Your task to perform on an android device: open a bookmark in the chrome app Image 0: 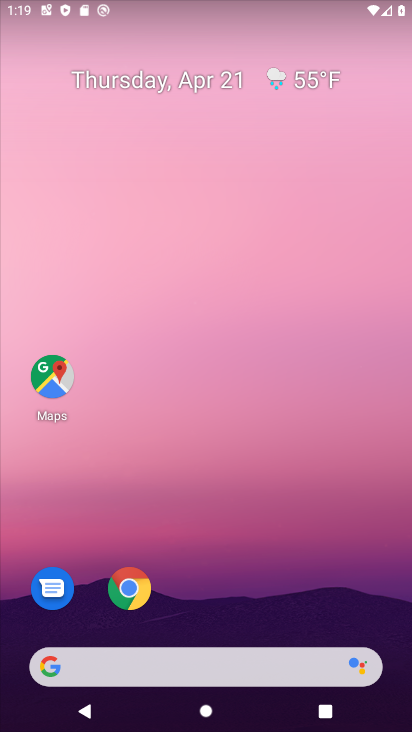
Step 0: click (128, 608)
Your task to perform on an android device: open a bookmark in the chrome app Image 1: 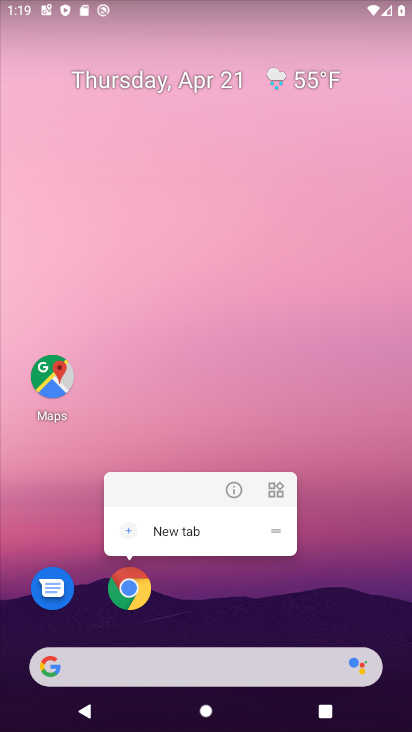
Step 1: click (130, 598)
Your task to perform on an android device: open a bookmark in the chrome app Image 2: 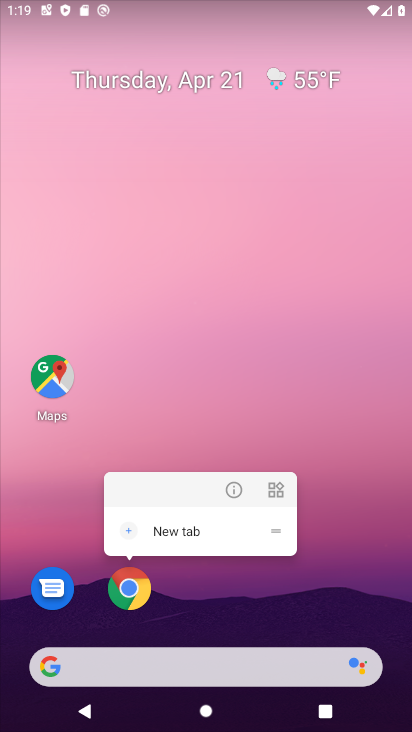
Step 2: click (130, 593)
Your task to perform on an android device: open a bookmark in the chrome app Image 3: 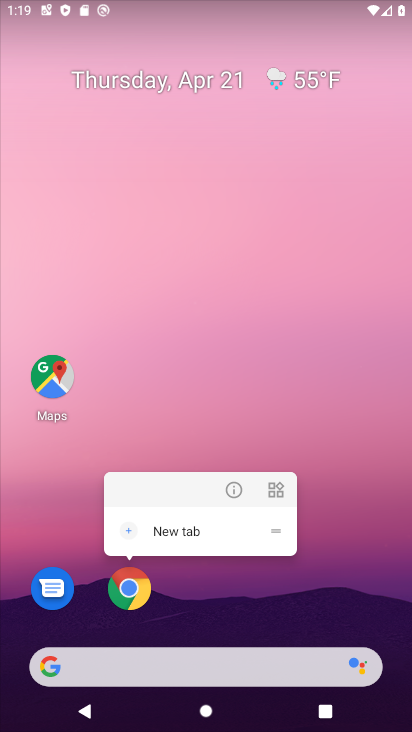
Step 3: click (130, 589)
Your task to perform on an android device: open a bookmark in the chrome app Image 4: 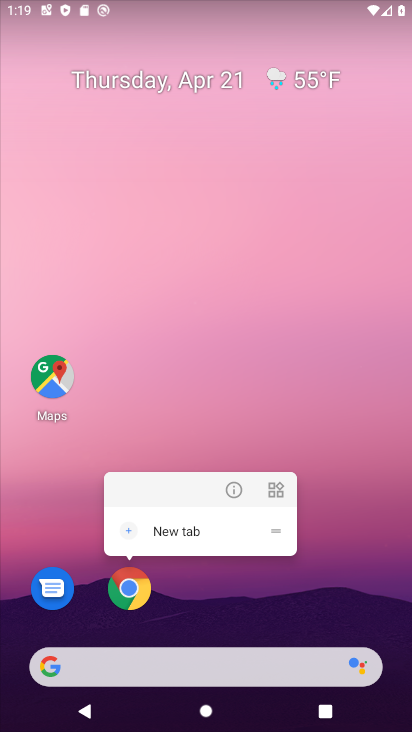
Step 4: click (130, 582)
Your task to perform on an android device: open a bookmark in the chrome app Image 5: 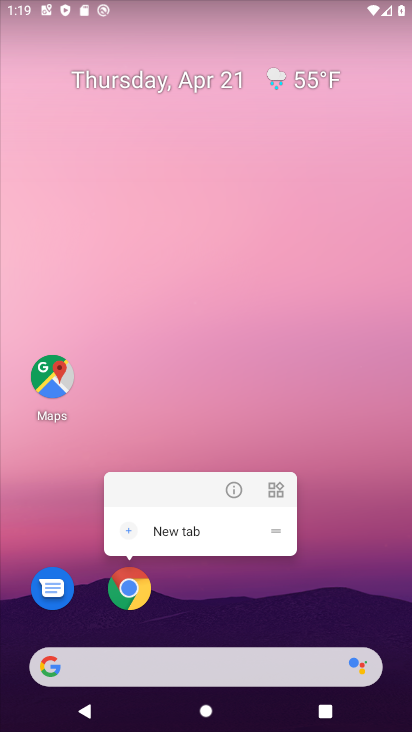
Step 5: click (130, 582)
Your task to perform on an android device: open a bookmark in the chrome app Image 6: 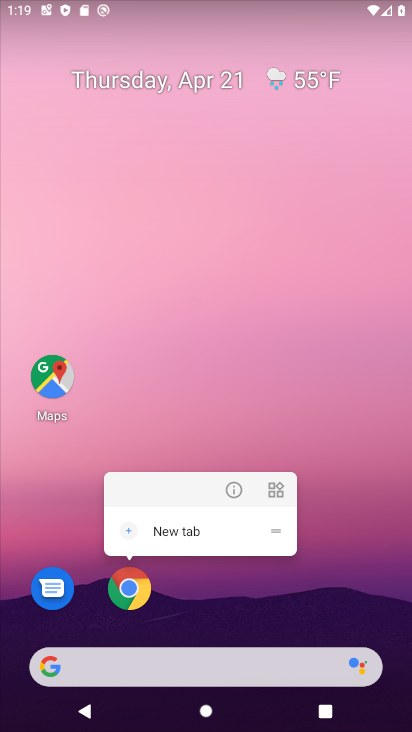
Step 6: click (129, 591)
Your task to perform on an android device: open a bookmark in the chrome app Image 7: 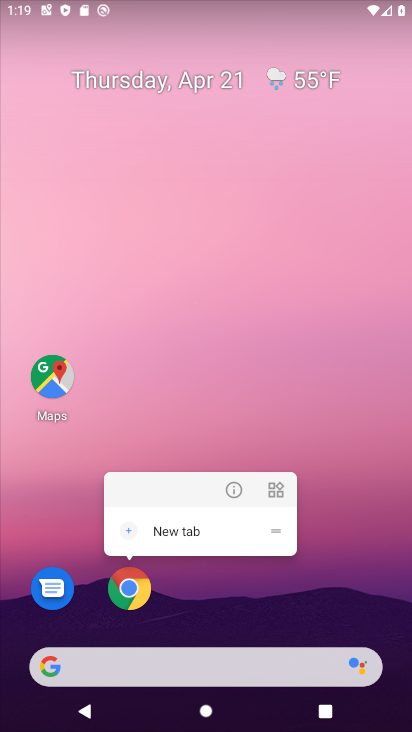
Step 7: click (129, 591)
Your task to perform on an android device: open a bookmark in the chrome app Image 8: 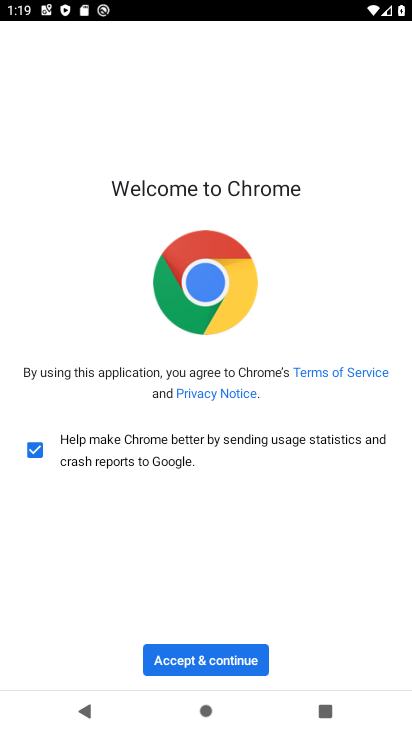
Step 8: click (206, 668)
Your task to perform on an android device: open a bookmark in the chrome app Image 9: 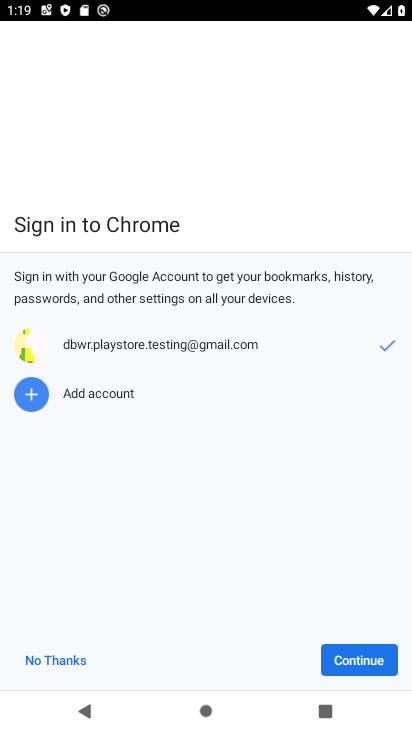
Step 9: click (372, 662)
Your task to perform on an android device: open a bookmark in the chrome app Image 10: 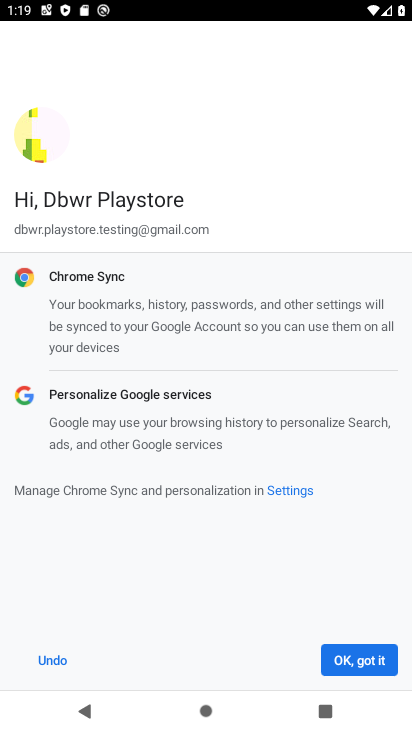
Step 10: click (372, 662)
Your task to perform on an android device: open a bookmark in the chrome app Image 11: 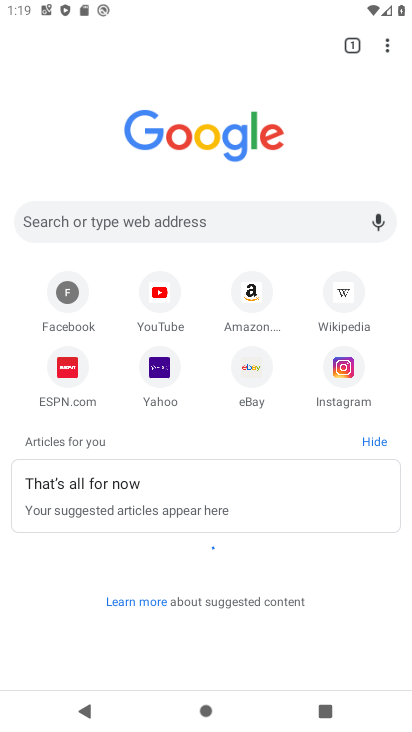
Step 11: task complete